Your task to perform on an android device: Go to notification settings Image 0: 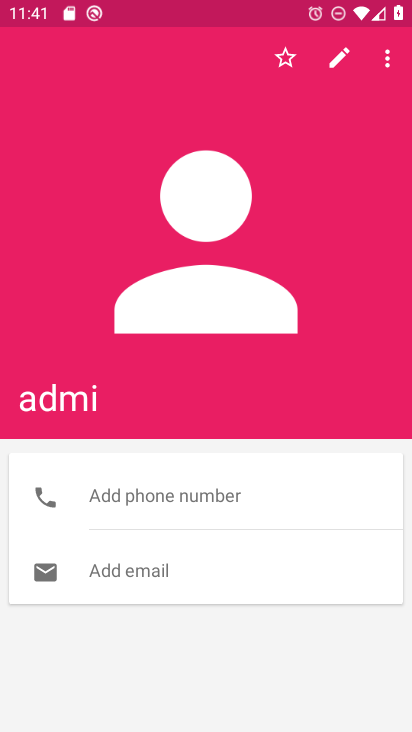
Step 0: press home button
Your task to perform on an android device: Go to notification settings Image 1: 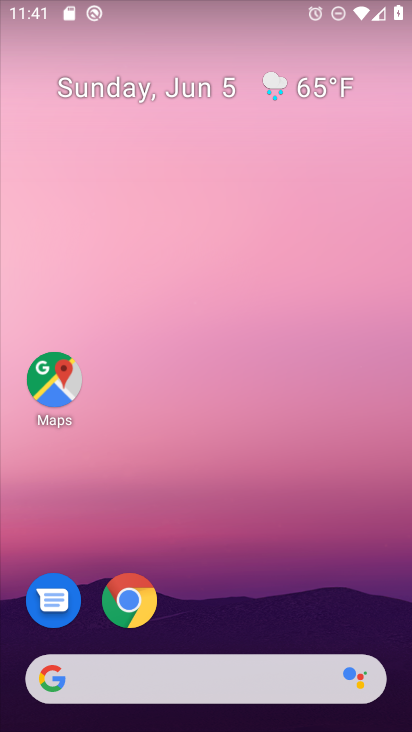
Step 1: drag from (396, 624) to (240, 77)
Your task to perform on an android device: Go to notification settings Image 2: 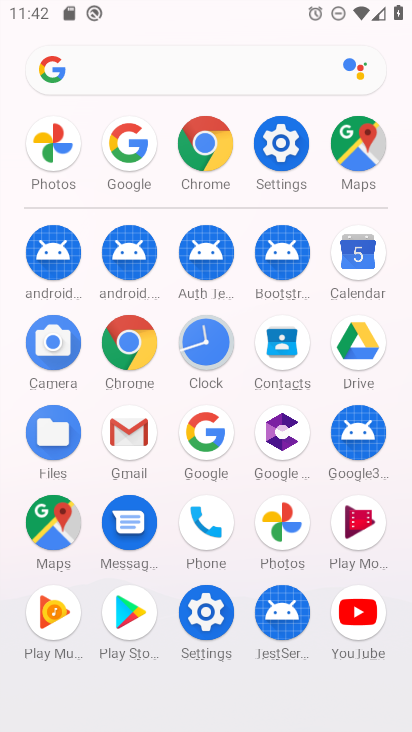
Step 2: click (206, 628)
Your task to perform on an android device: Go to notification settings Image 3: 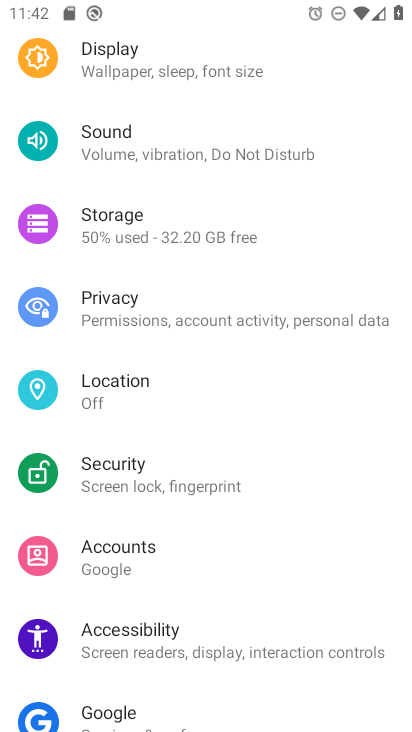
Step 3: drag from (151, 153) to (186, 654)
Your task to perform on an android device: Go to notification settings Image 4: 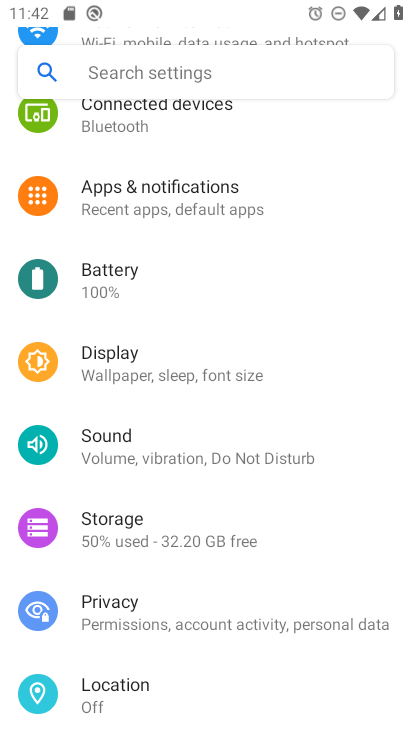
Step 4: click (235, 202)
Your task to perform on an android device: Go to notification settings Image 5: 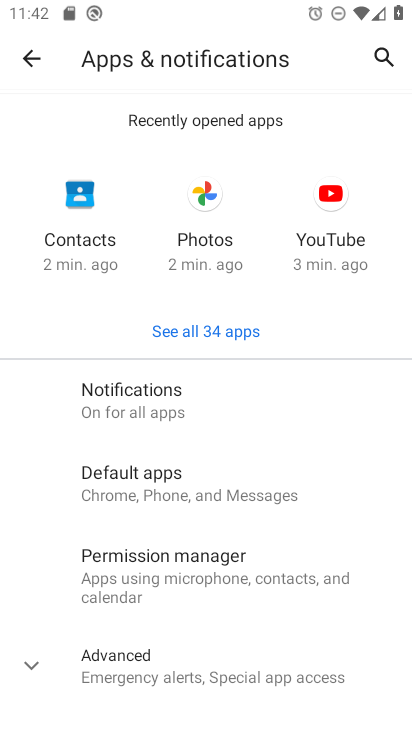
Step 5: click (99, 420)
Your task to perform on an android device: Go to notification settings Image 6: 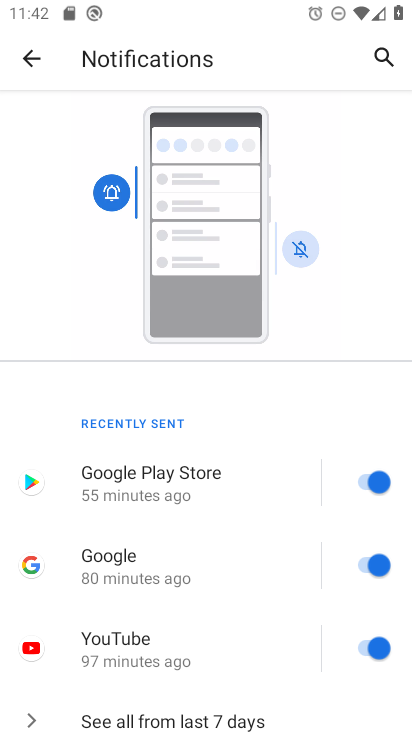
Step 6: task complete